Your task to perform on an android device: Open eBay Image 0: 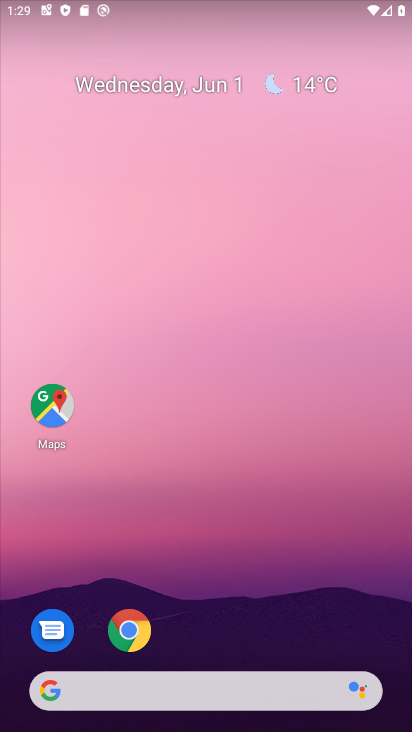
Step 0: press home button
Your task to perform on an android device: Open eBay Image 1: 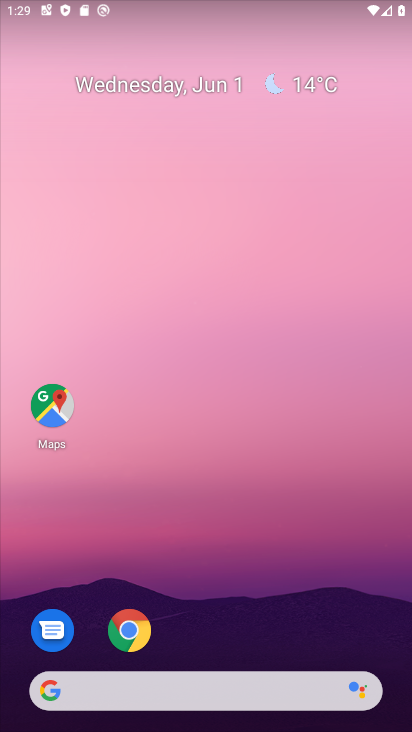
Step 1: click (131, 624)
Your task to perform on an android device: Open eBay Image 2: 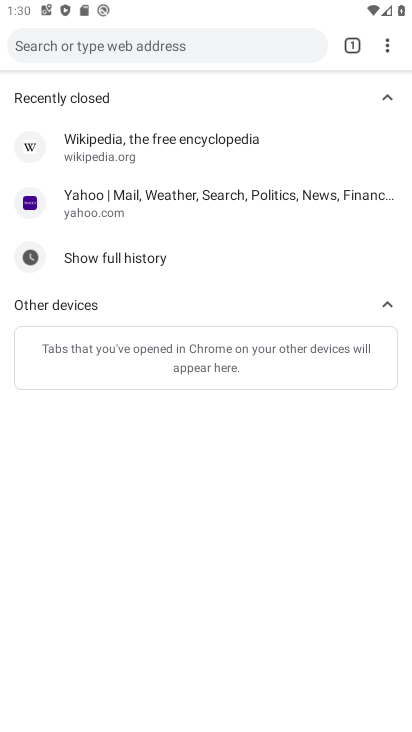
Step 2: click (348, 42)
Your task to perform on an android device: Open eBay Image 3: 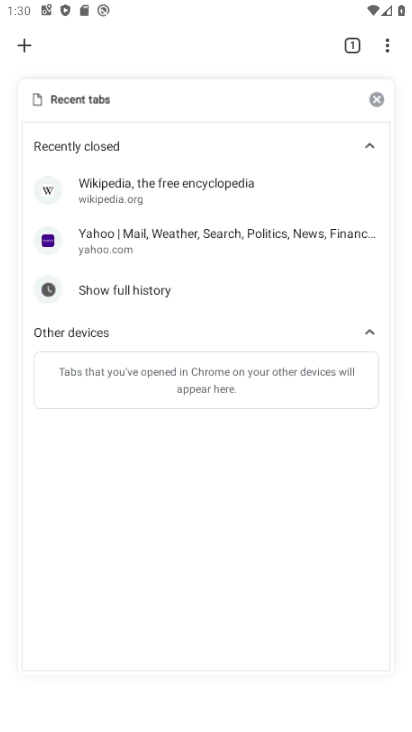
Step 3: click (376, 94)
Your task to perform on an android device: Open eBay Image 4: 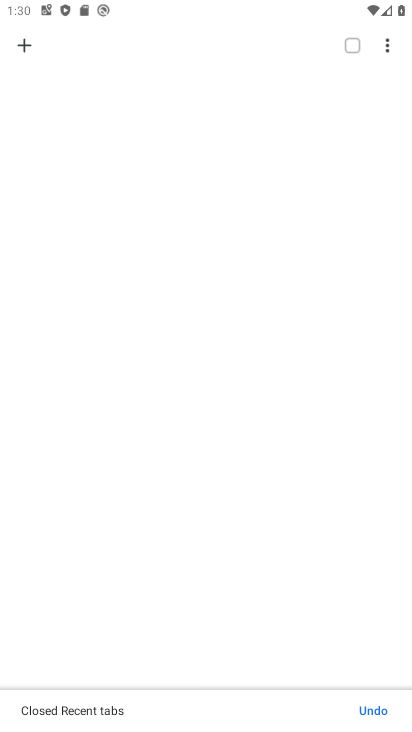
Step 4: click (31, 43)
Your task to perform on an android device: Open eBay Image 5: 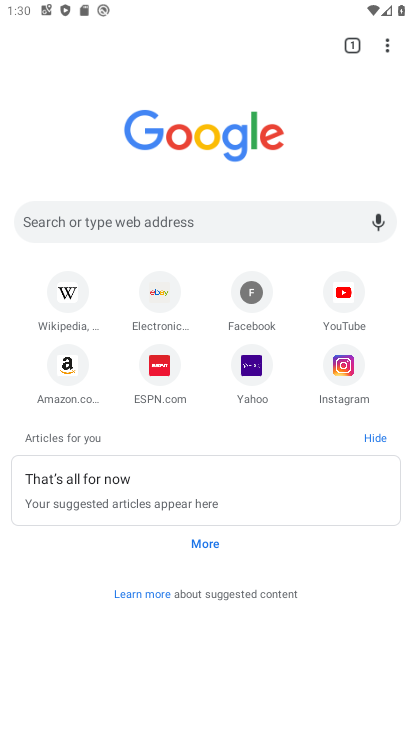
Step 5: click (161, 287)
Your task to perform on an android device: Open eBay Image 6: 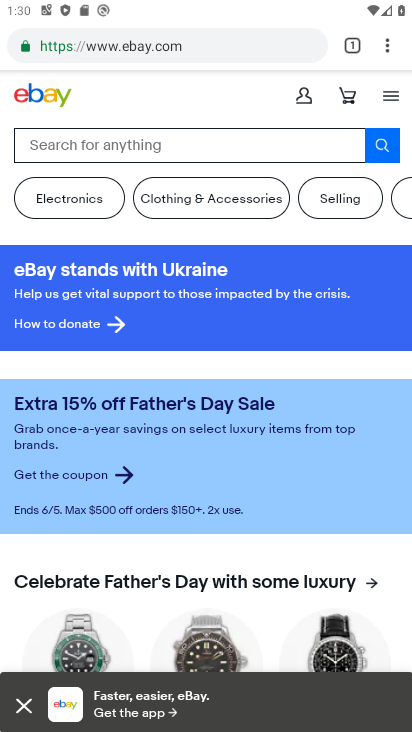
Step 6: task complete